Your task to perform on an android device: Set the phone to "Do not disturb". Image 0: 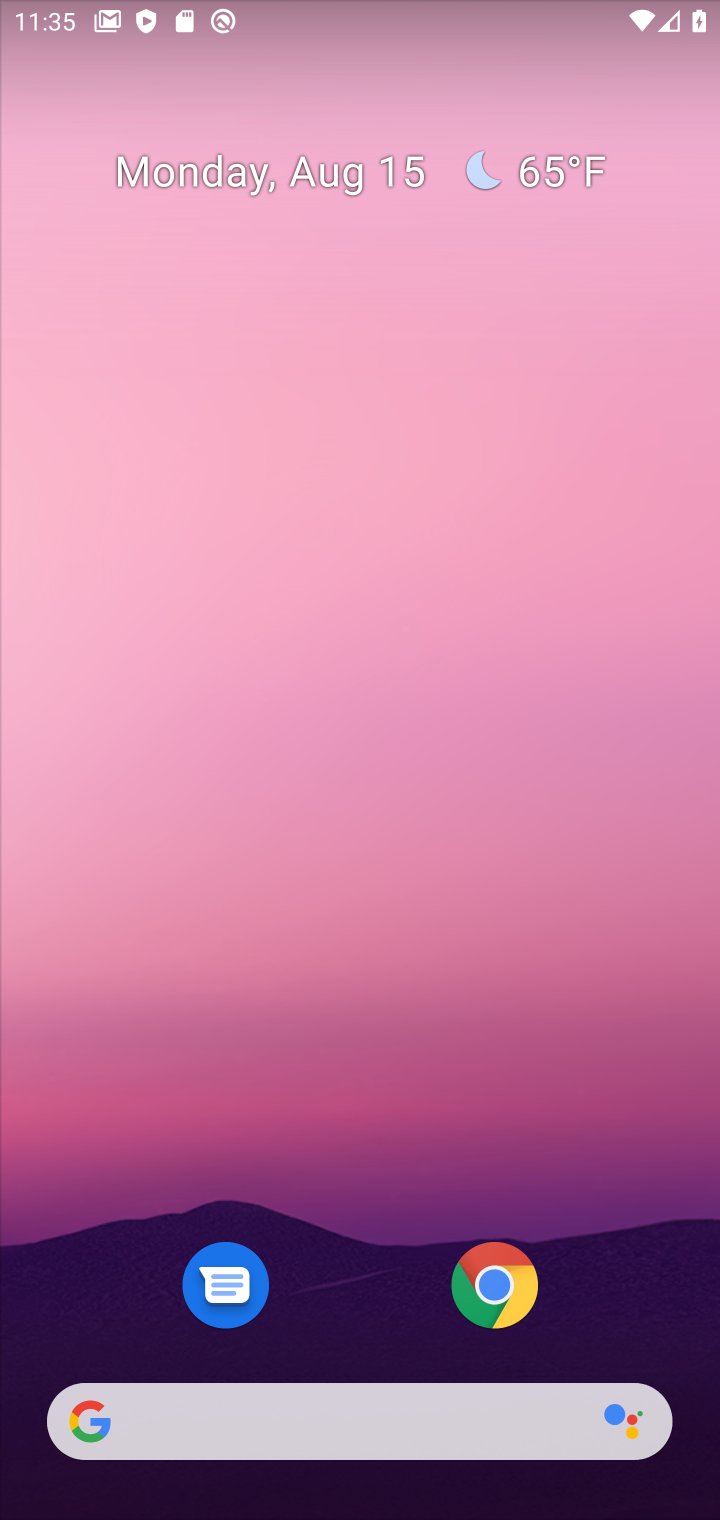
Step 0: press home button
Your task to perform on an android device: Set the phone to "Do not disturb". Image 1: 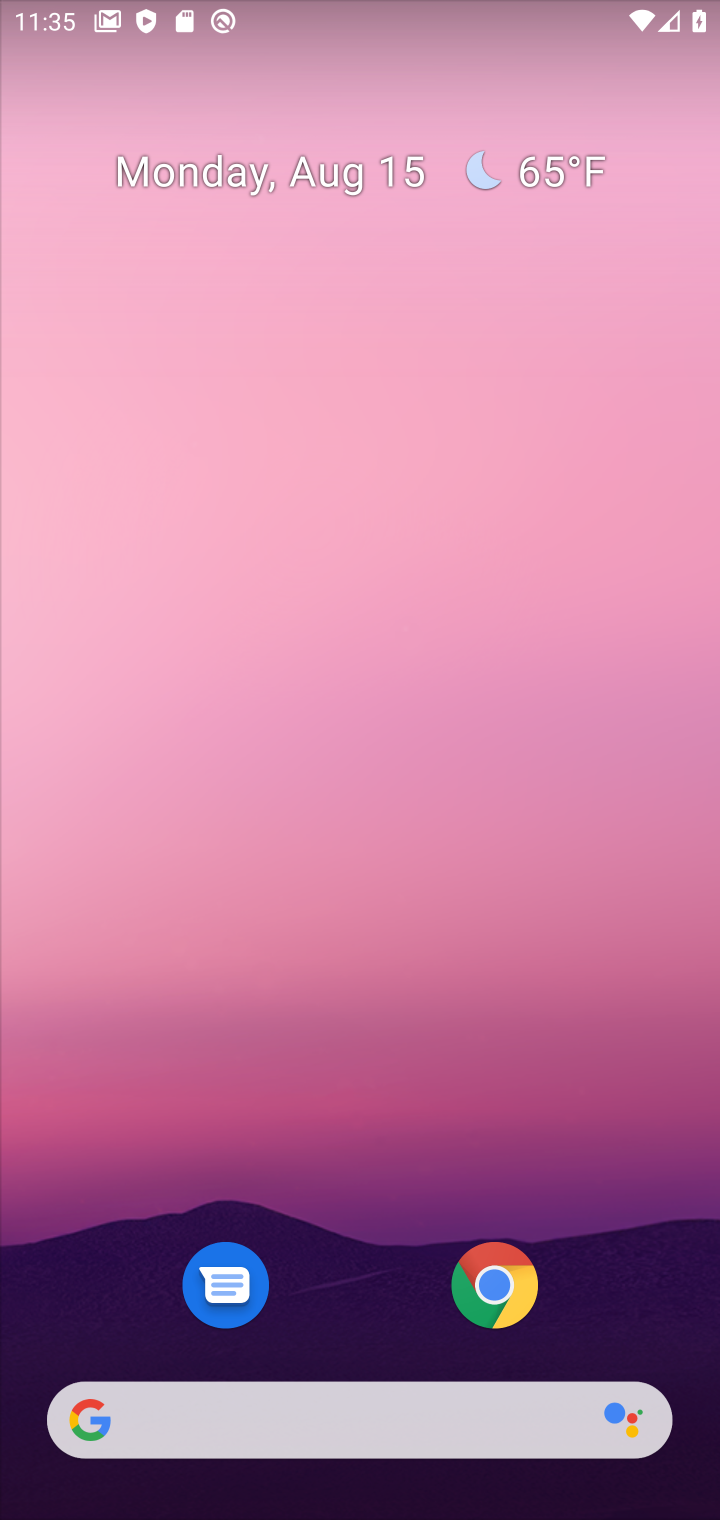
Step 1: drag from (377, 1332) to (513, 469)
Your task to perform on an android device: Set the phone to "Do not disturb". Image 2: 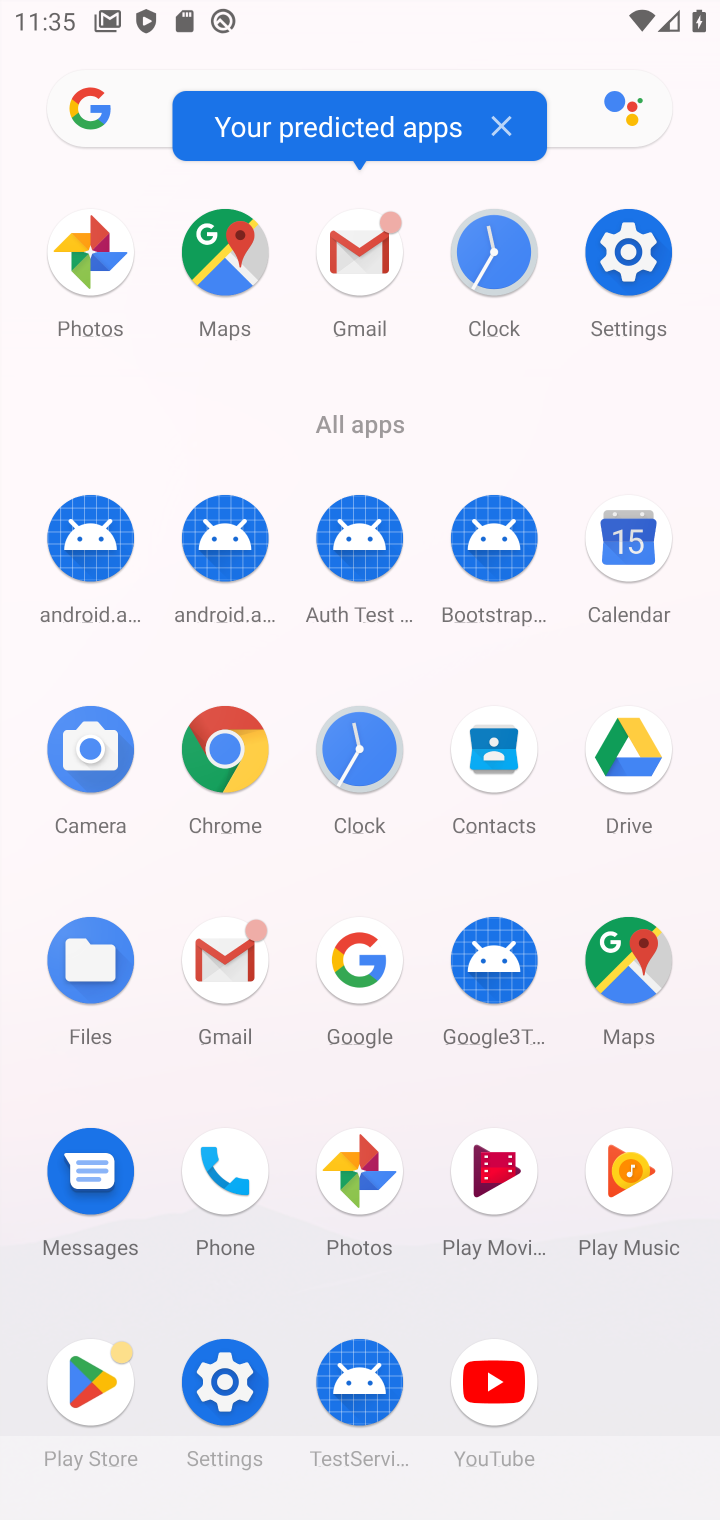
Step 2: drag from (422, 87) to (469, 1153)
Your task to perform on an android device: Set the phone to "Do not disturb". Image 3: 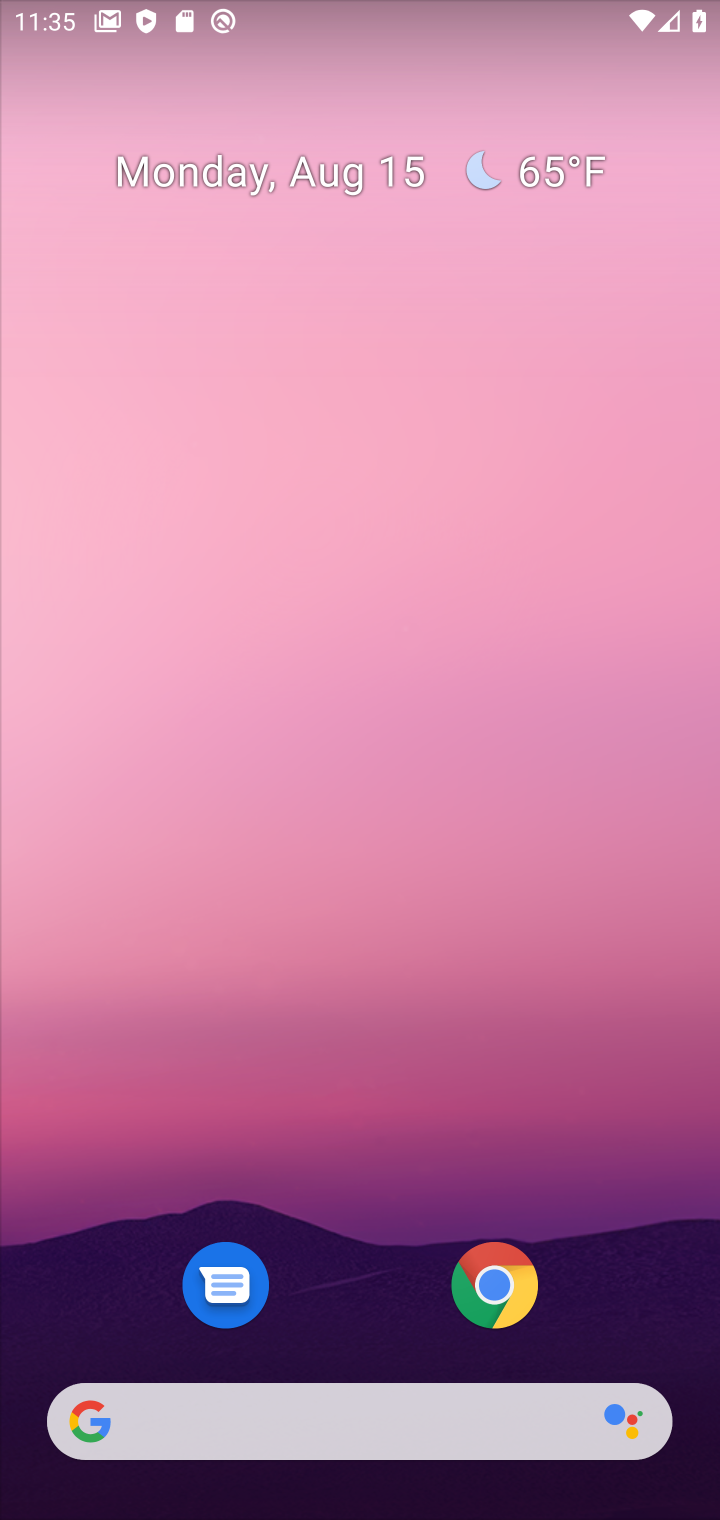
Step 3: drag from (338, 10) to (396, 1359)
Your task to perform on an android device: Set the phone to "Do not disturb". Image 4: 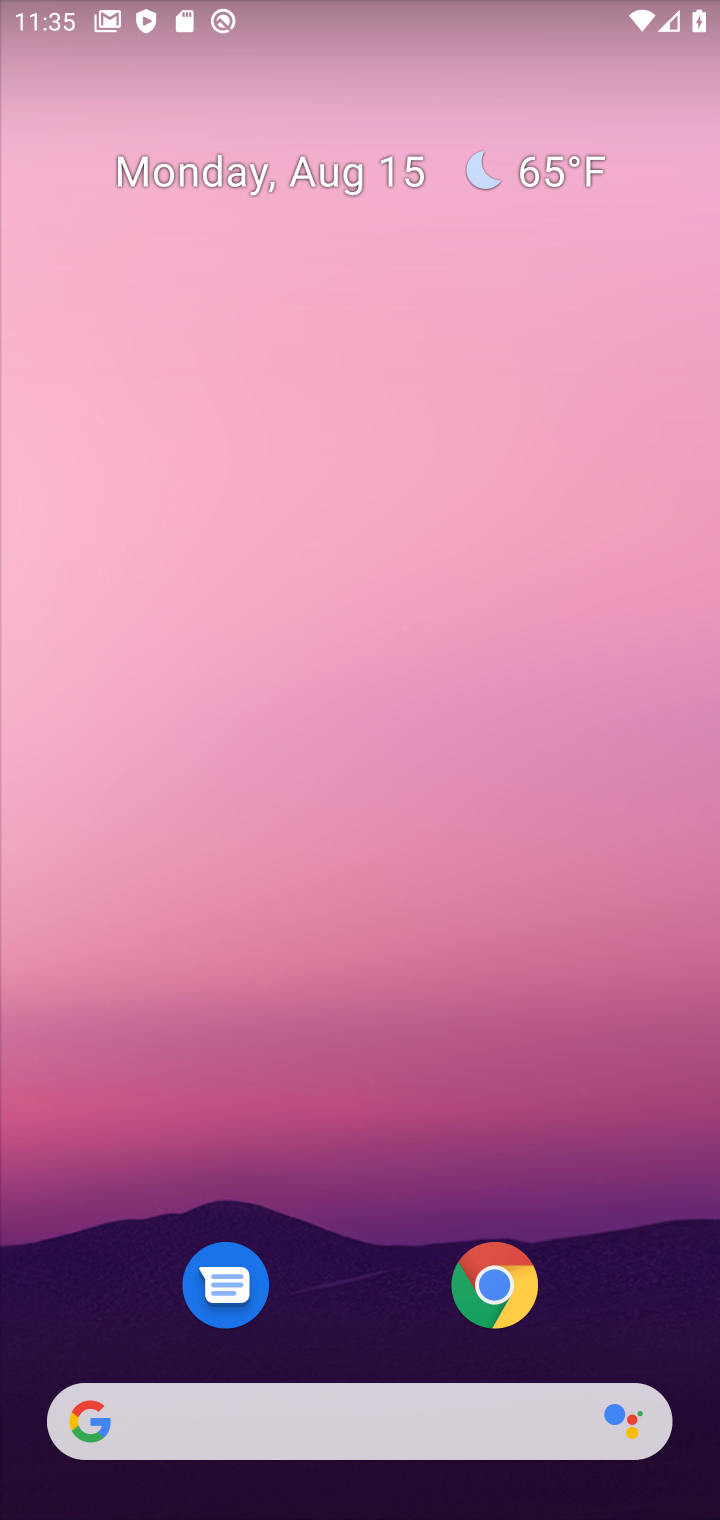
Step 4: drag from (482, 62) to (496, 1443)
Your task to perform on an android device: Set the phone to "Do not disturb". Image 5: 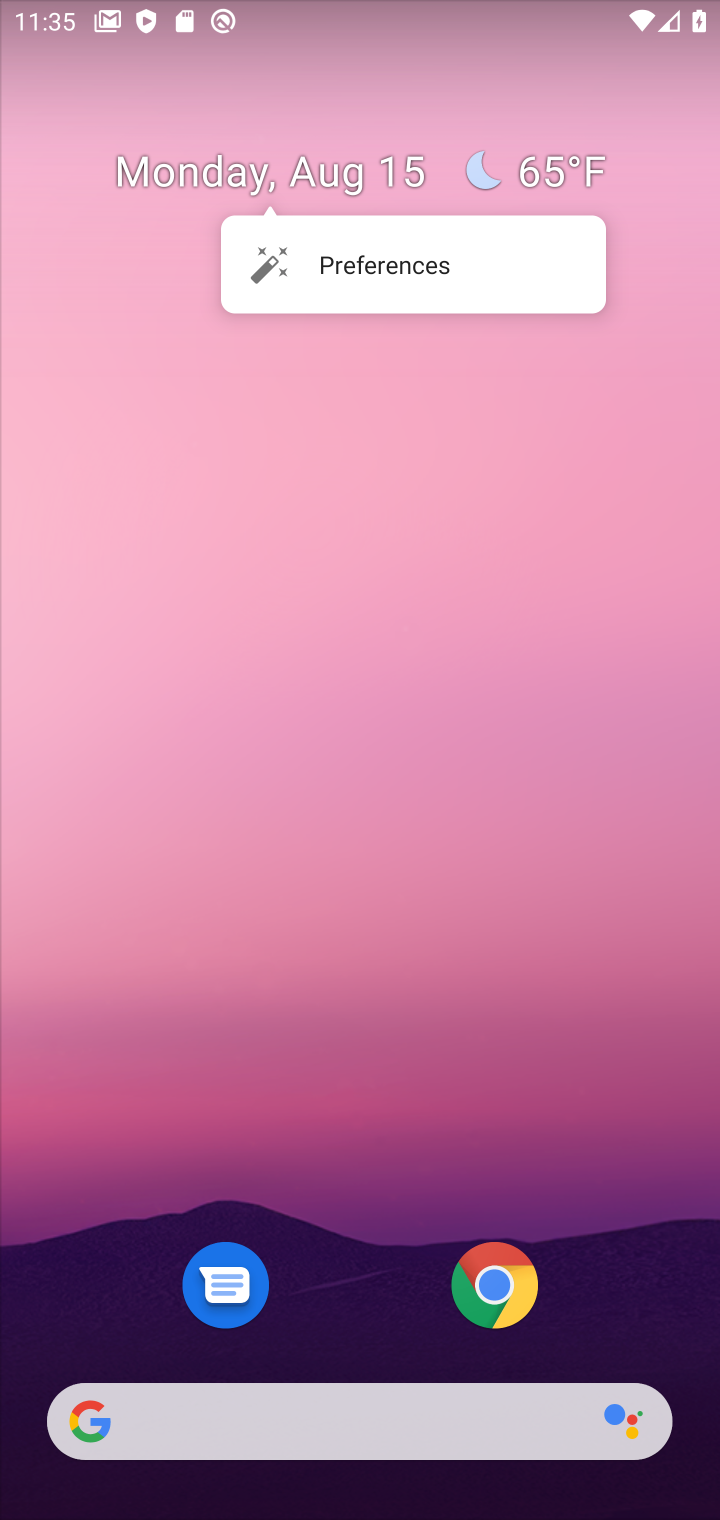
Step 5: drag from (483, 23) to (483, 1386)
Your task to perform on an android device: Set the phone to "Do not disturb". Image 6: 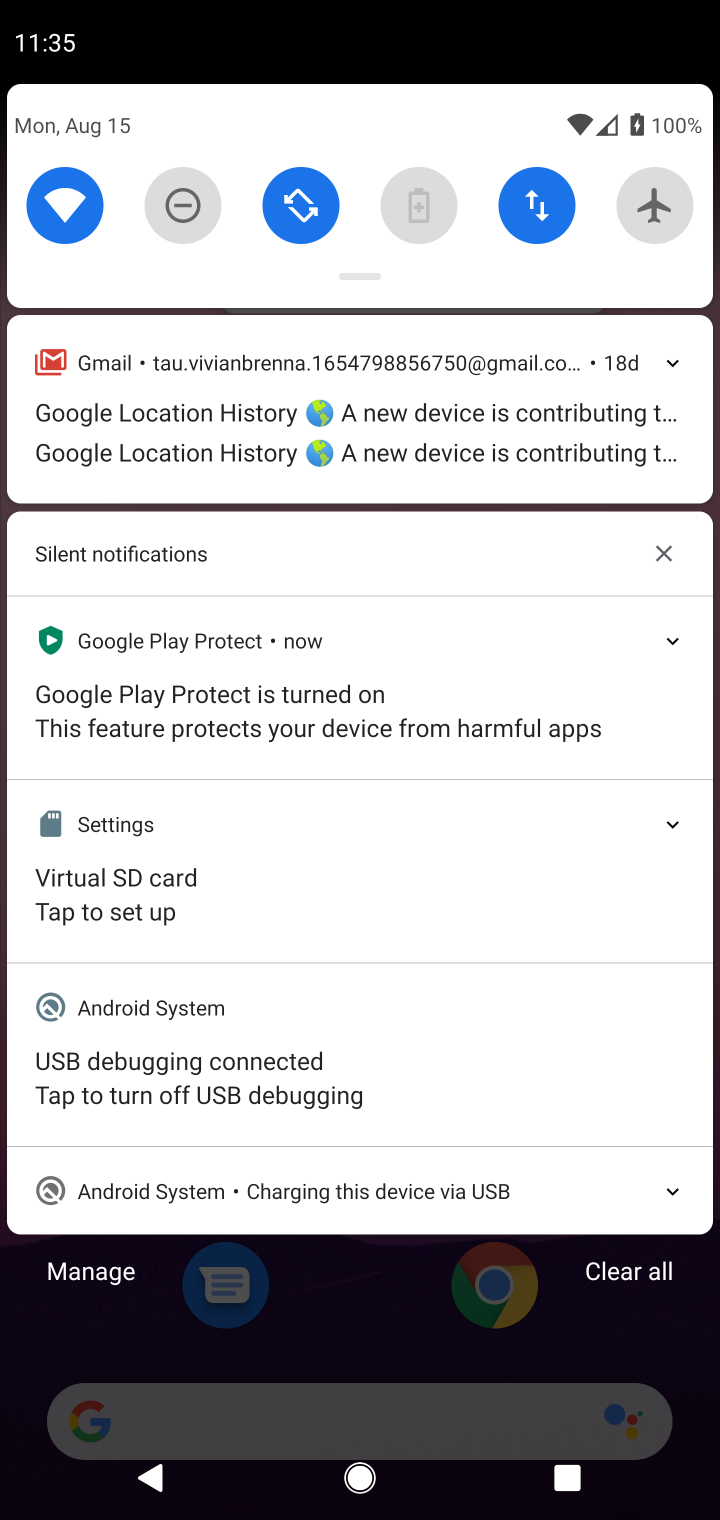
Step 6: click (183, 213)
Your task to perform on an android device: Set the phone to "Do not disturb". Image 7: 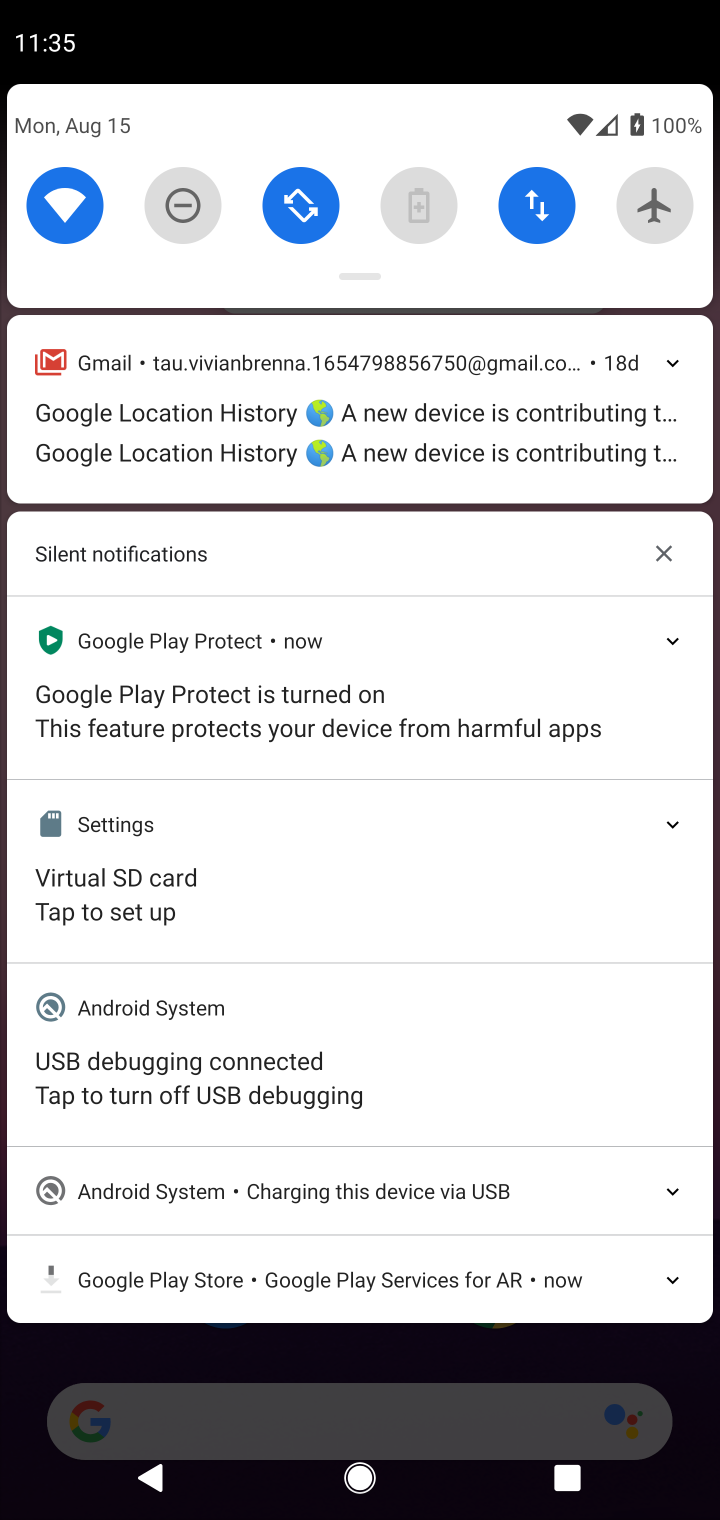
Step 7: click (176, 192)
Your task to perform on an android device: Set the phone to "Do not disturb". Image 8: 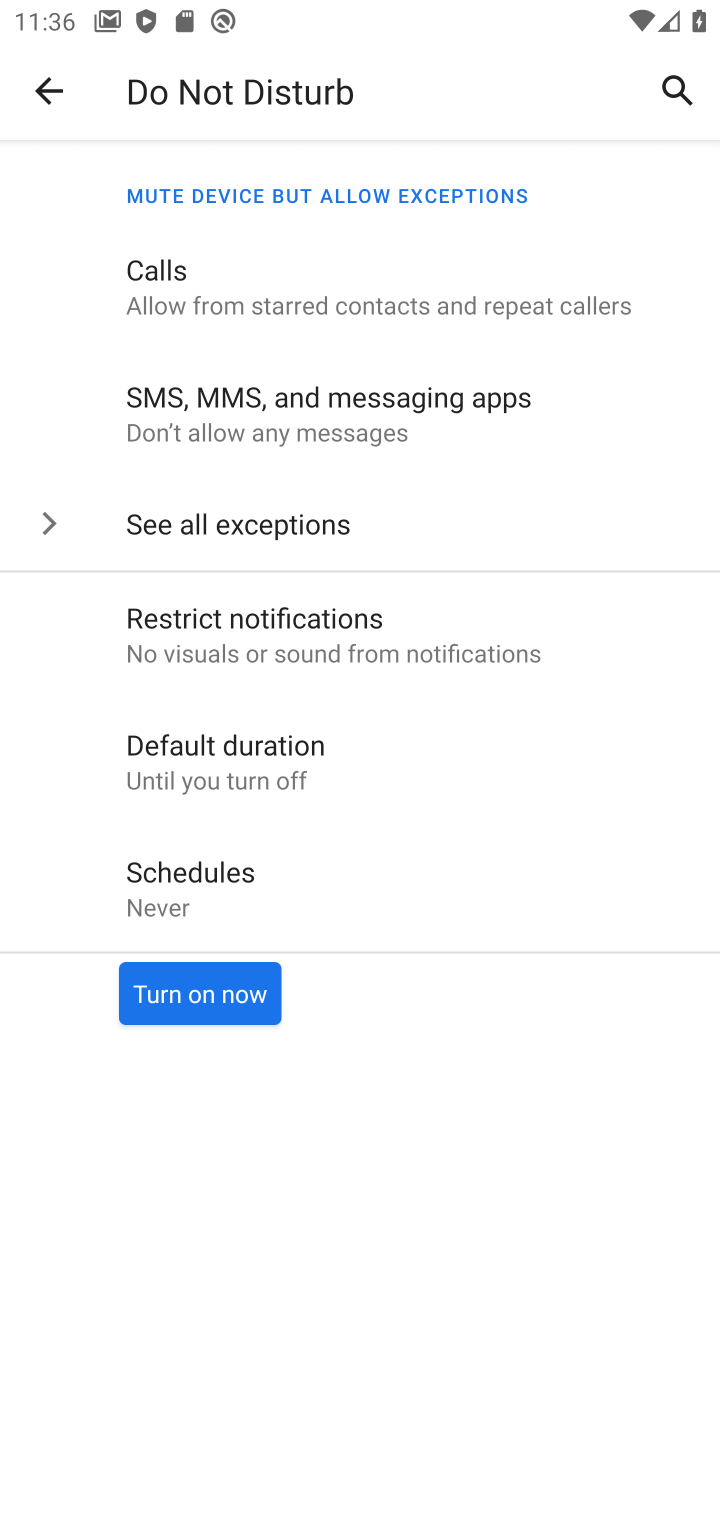
Step 8: click (207, 977)
Your task to perform on an android device: Set the phone to "Do not disturb". Image 9: 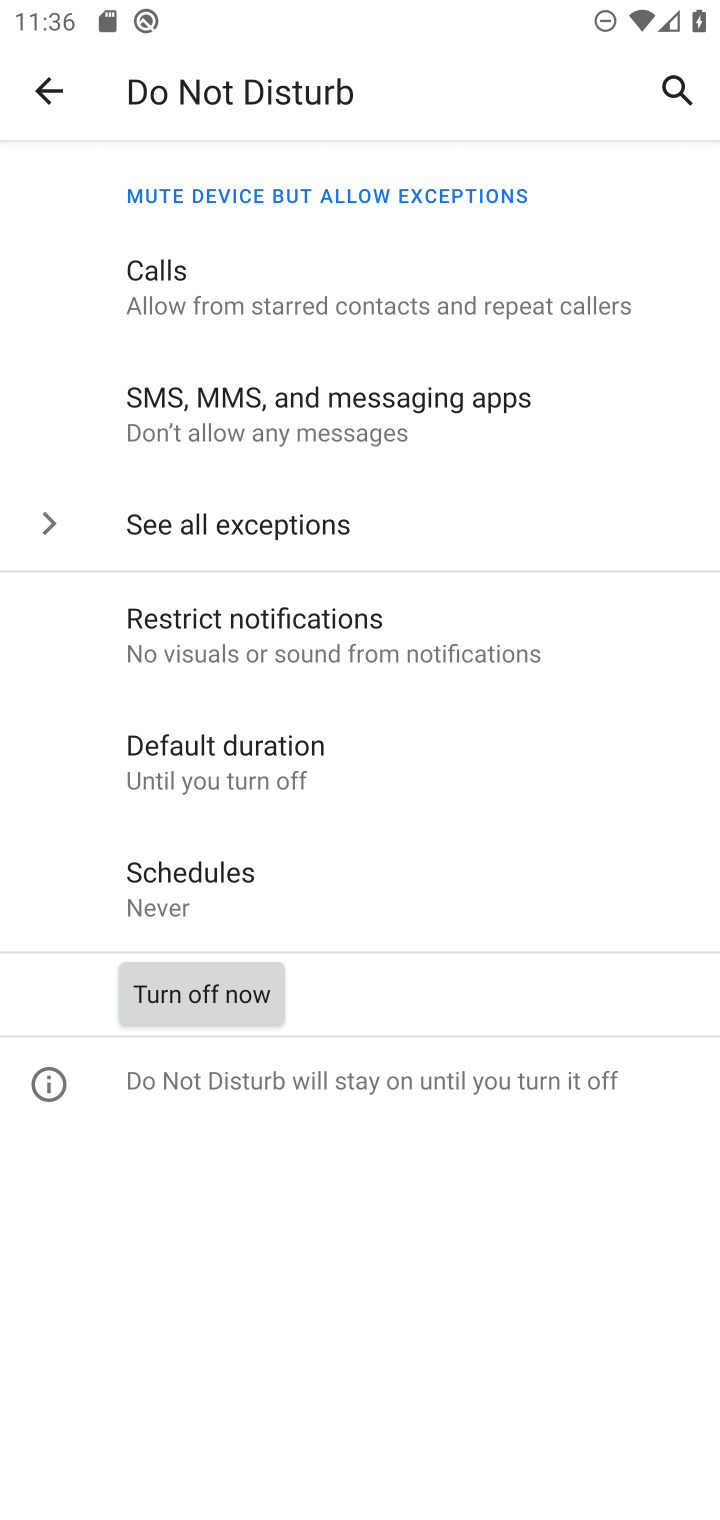
Step 9: task complete